Your task to perform on an android device: Open sound settings Image 0: 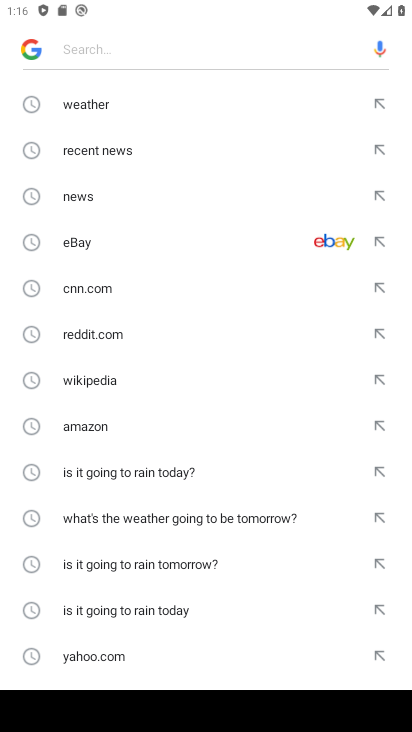
Step 0: press home button
Your task to perform on an android device: Open sound settings Image 1: 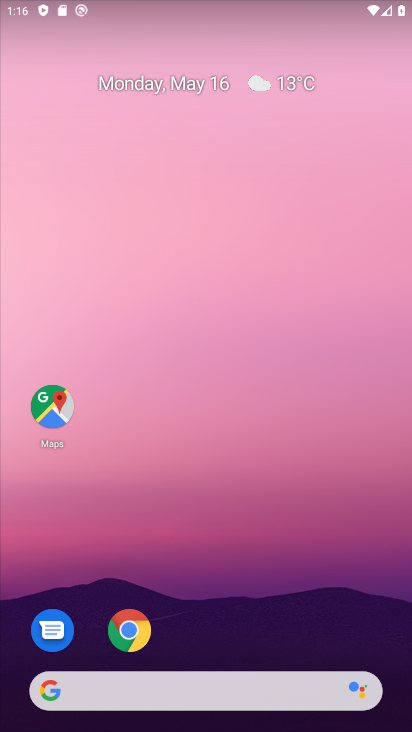
Step 1: click (130, 625)
Your task to perform on an android device: Open sound settings Image 2: 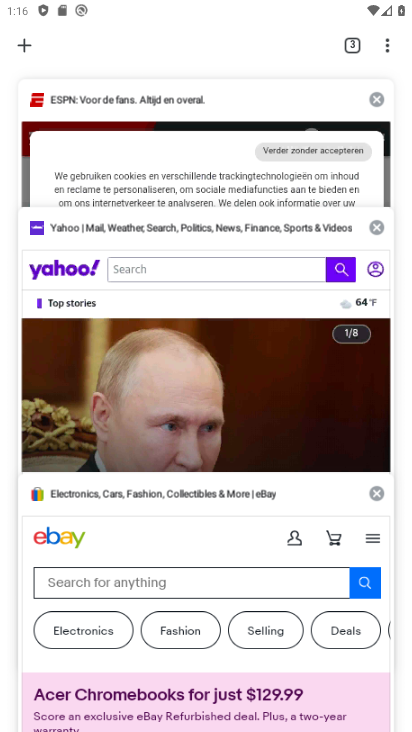
Step 2: click (79, 333)
Your task to perform on an android device: Open sound settings Image 3: 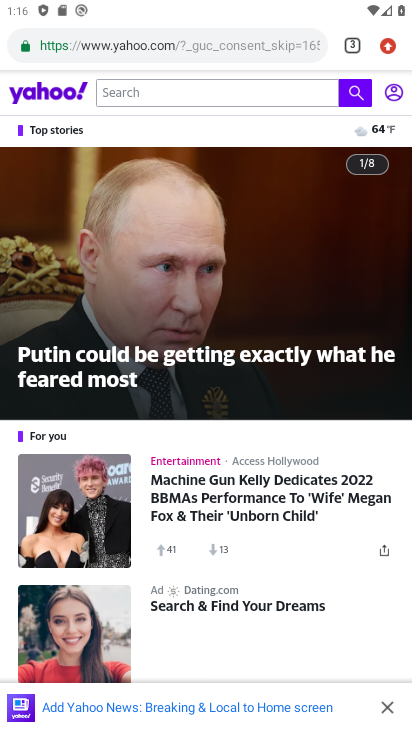
Step 3: task complete